Your task to perform on an android device: Go to settings Image 0: 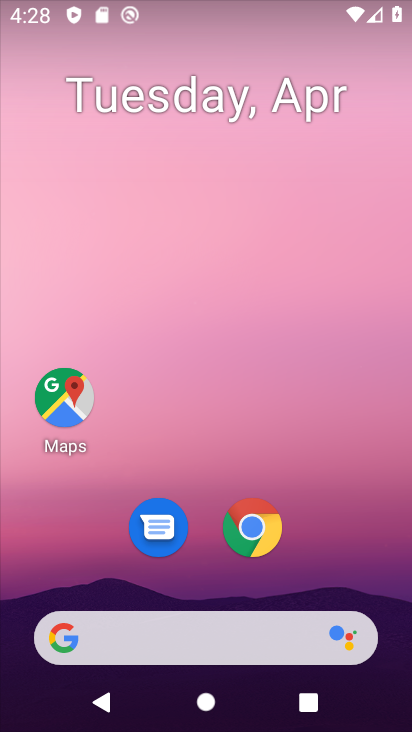
Step 0: drag from (210, 586) to (281, 147)
Your task to perform on an android device: Go to settings Image 1: 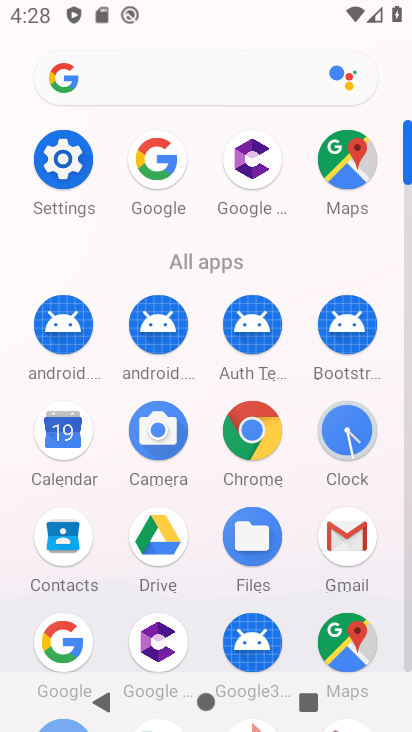
Step 1: click (71, 155)
Your task to perform on an android device: Go to settings Image 2: 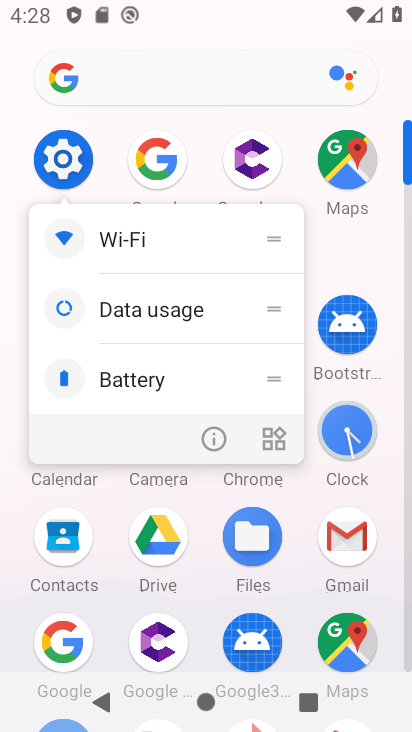
Step 2: click (68, 152)
Your task to perform on an android device: Go to settings Image 3: 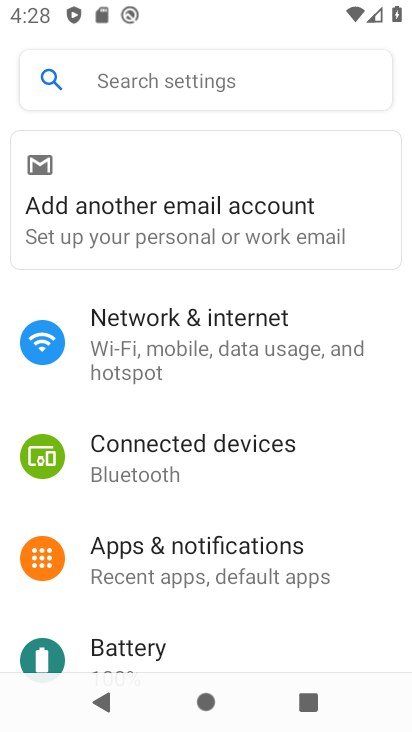
Step 3: task complete